Your task to perform on an android device: turn on improve location accuracy Image 0: 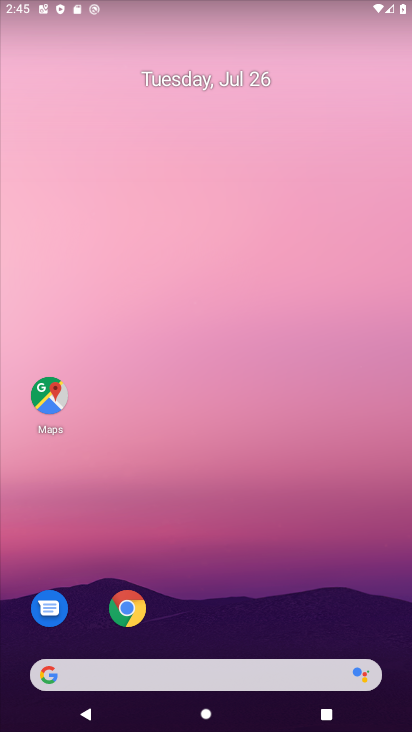
Step 0: drag from (228, 633) to (231, 63)
Your task to perform on an android device: turn on improve location accuracy Image 1: 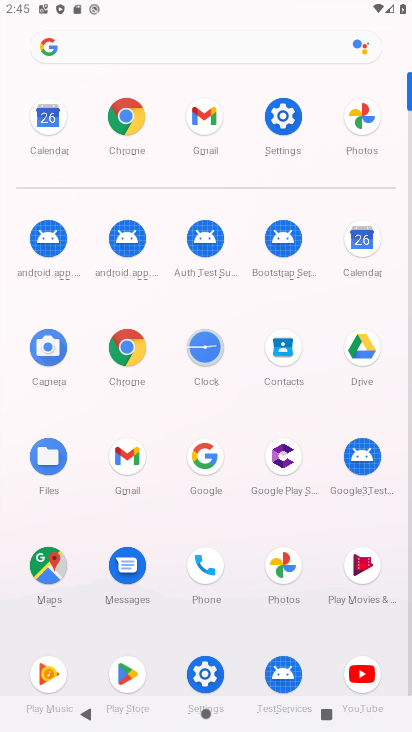
Step 1: click (280, 142)
Your task to perform on an android device: turn on improve location accuracy Image 2: 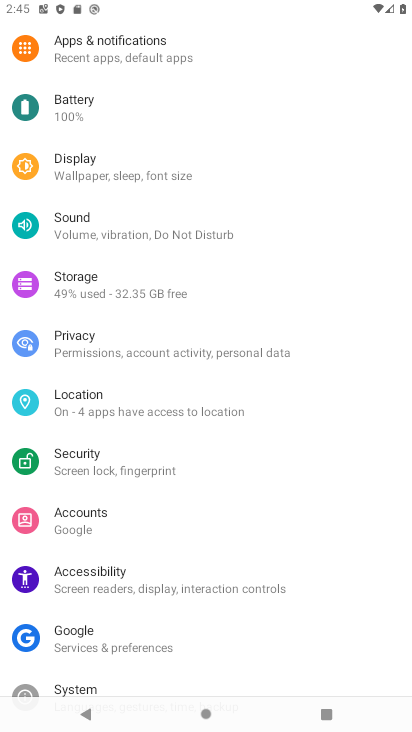
Step 2: click (126, 396)
Your task to perform on an android device: turn on improve location accuracy Image 3: 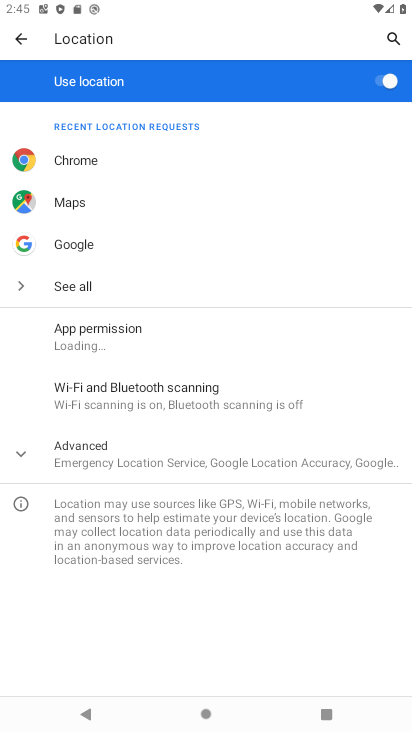
Step 3: task complete